Your task to perform on an android device: turn off location Image 0: 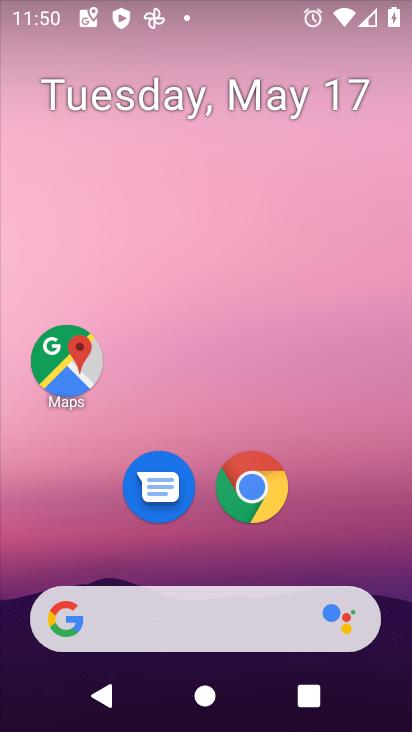
Step 0: drag from (326, 487) to (324, 50)
Your task to perform on an android device: turn off location Image 1: 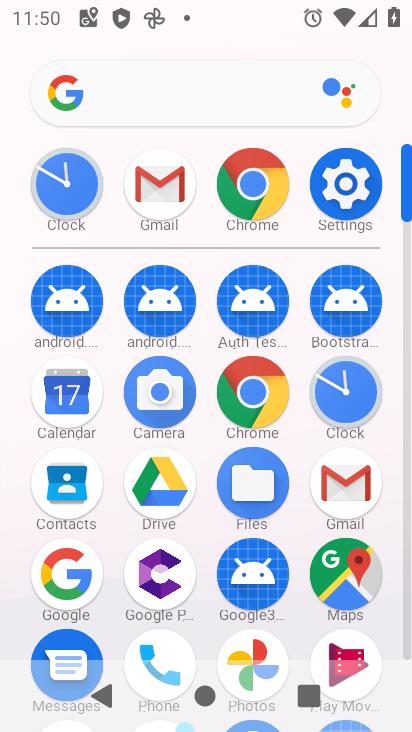
Step 1: click (334, 178)
Your task to perform on an android device: turn off location Image 2: 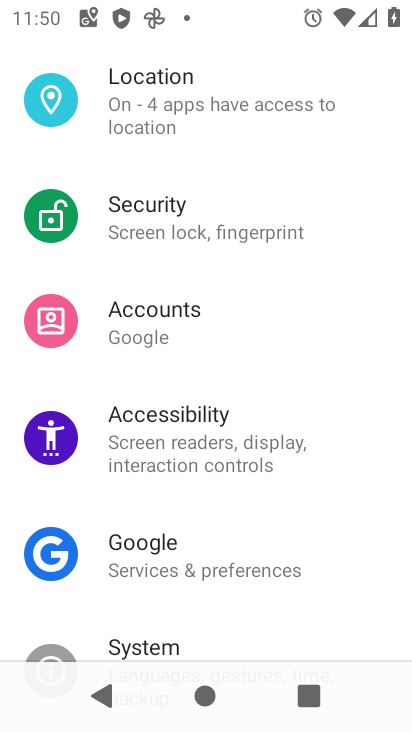
Step 2: click (282, 115)
Your task to perform on an android device: turn off location Image 3: 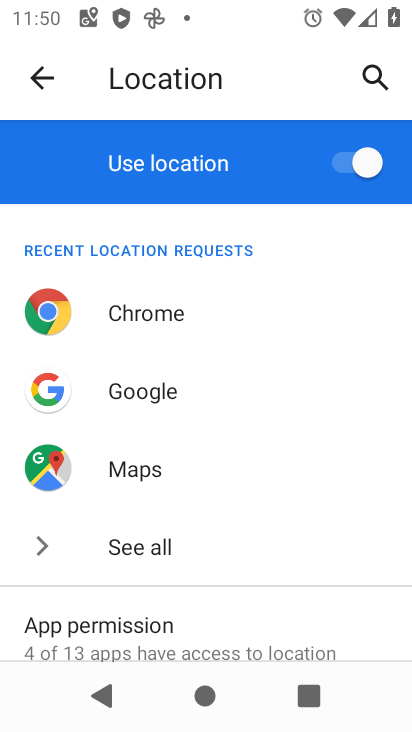
Step 3: task complete